Your task to perform on an android device: star an email in the gmail app Image 0: 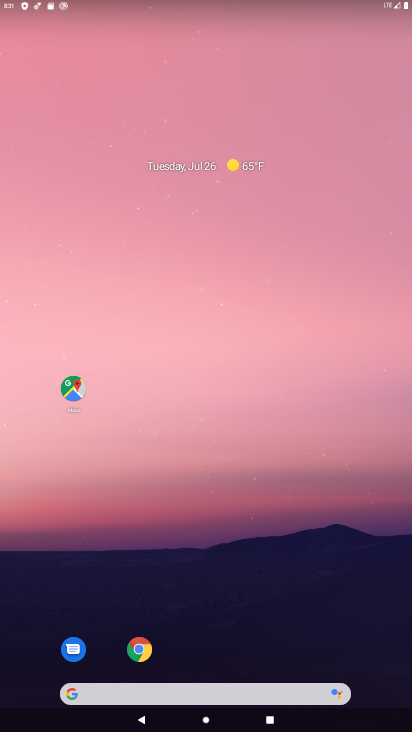
Step 0: drag from (181, 692) to (296, 60)
Your task to perform on an android device: star an email in the gmail app Image 1: 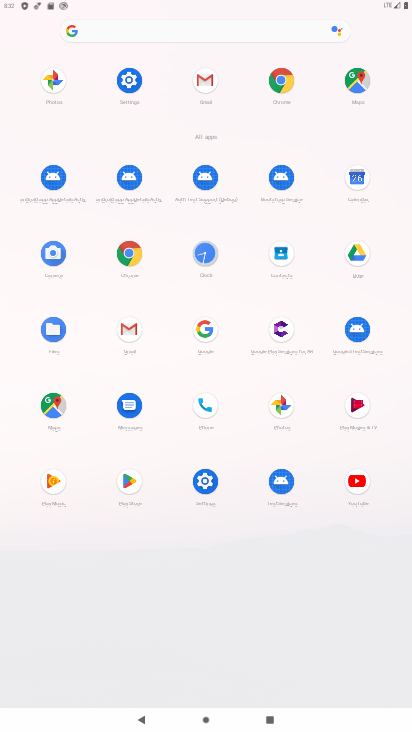
Step 1: click (204, 79)
Your task to perform on an android device: star an email in the gmail app Image 2: 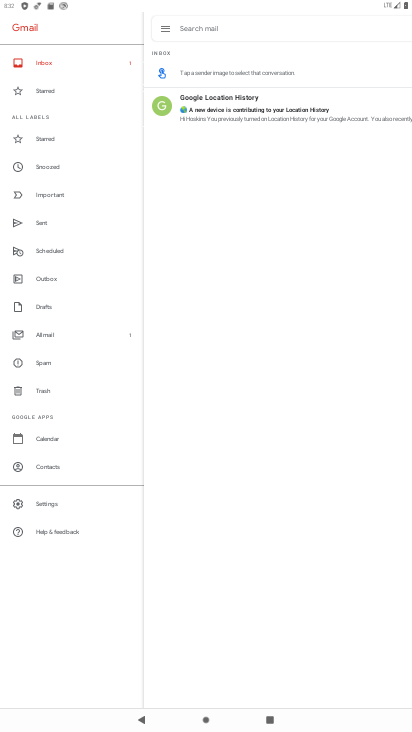
Step 2: click (235, 111)
Your task to perform on an android device: star an email in the gmail app Image 3: 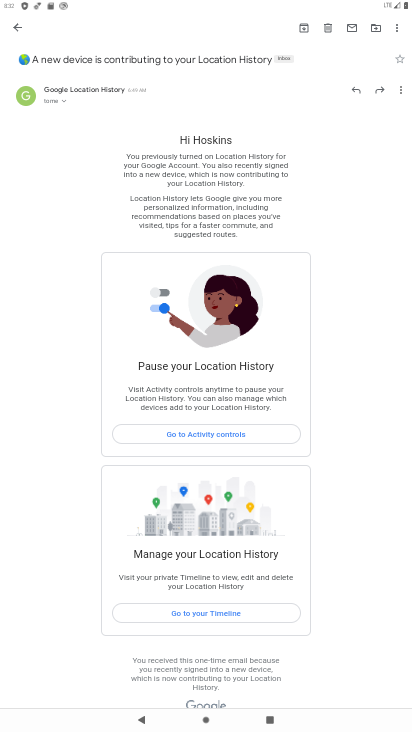
Step 3: click (405, 54)
Your task to perform on an android device: star an email in the gmail app Image 4: 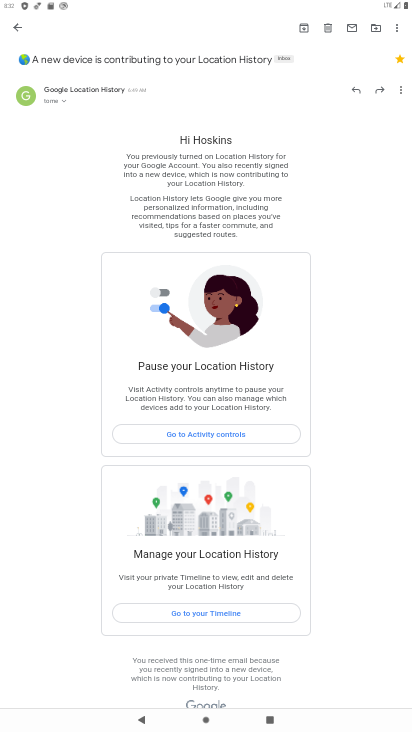
Step 4: task complete